Your task to perform on an android device: Find coffee shops on Maps Image 0: 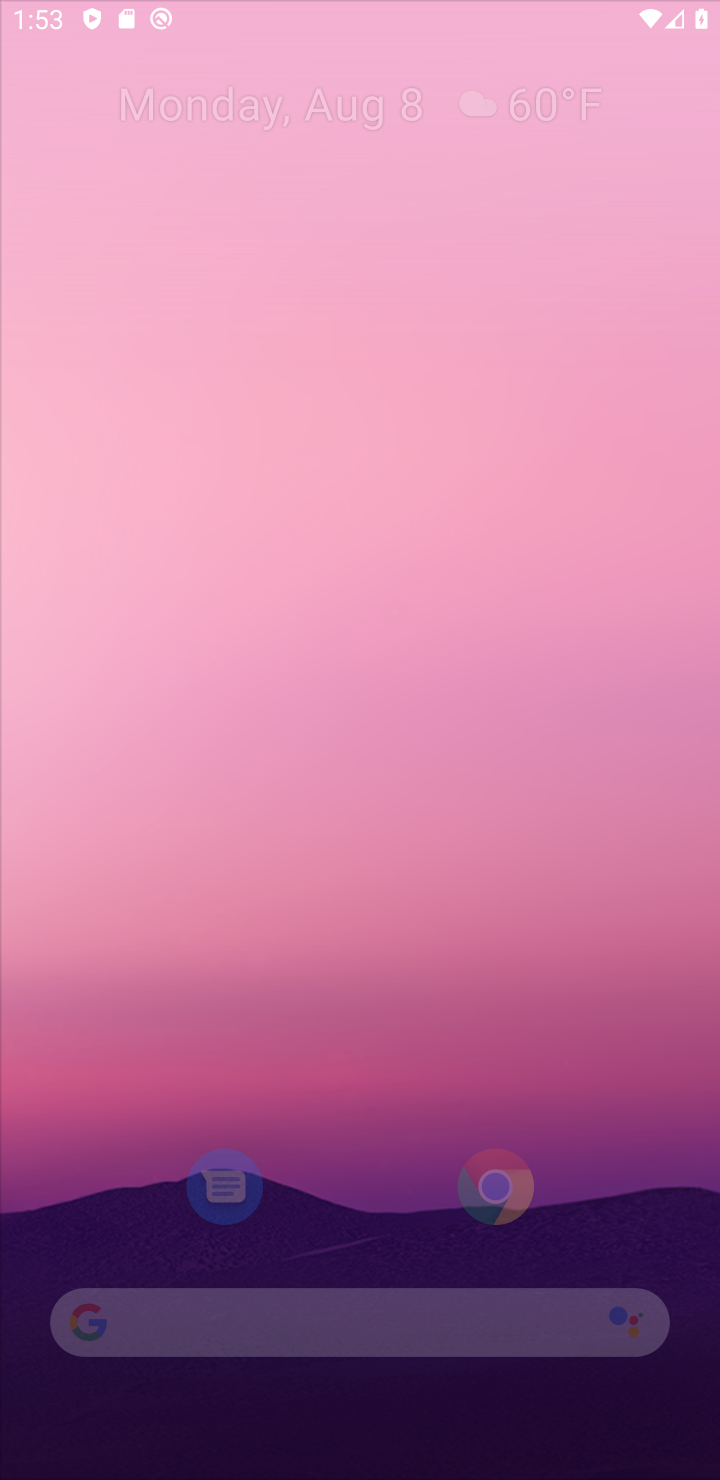
Step 0: press home button
Your task to perform on an android device: Find coffee shops on Maps Image 1: 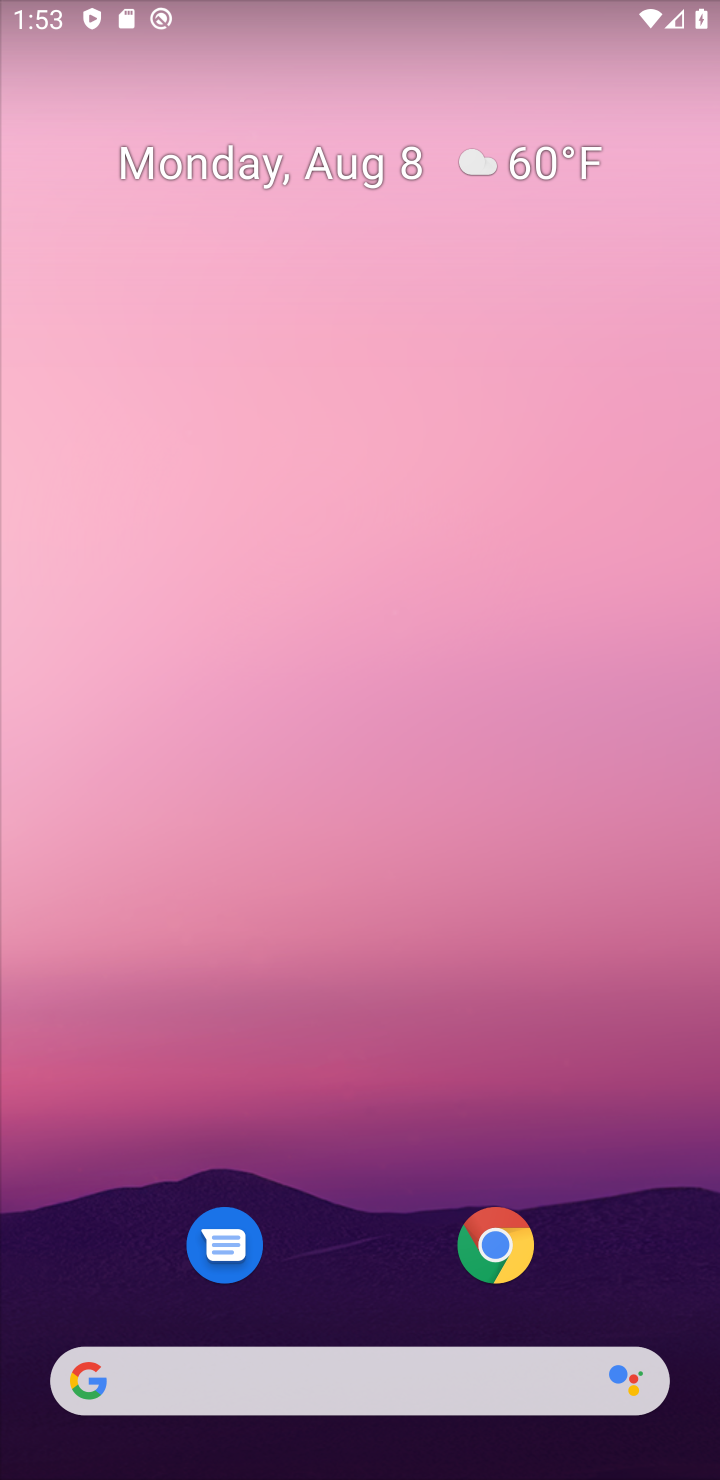
Step 1: drag from (372, 791) to (360, 289)
Your task to perform on an android device: Find coffee shops on Maps Image 2: 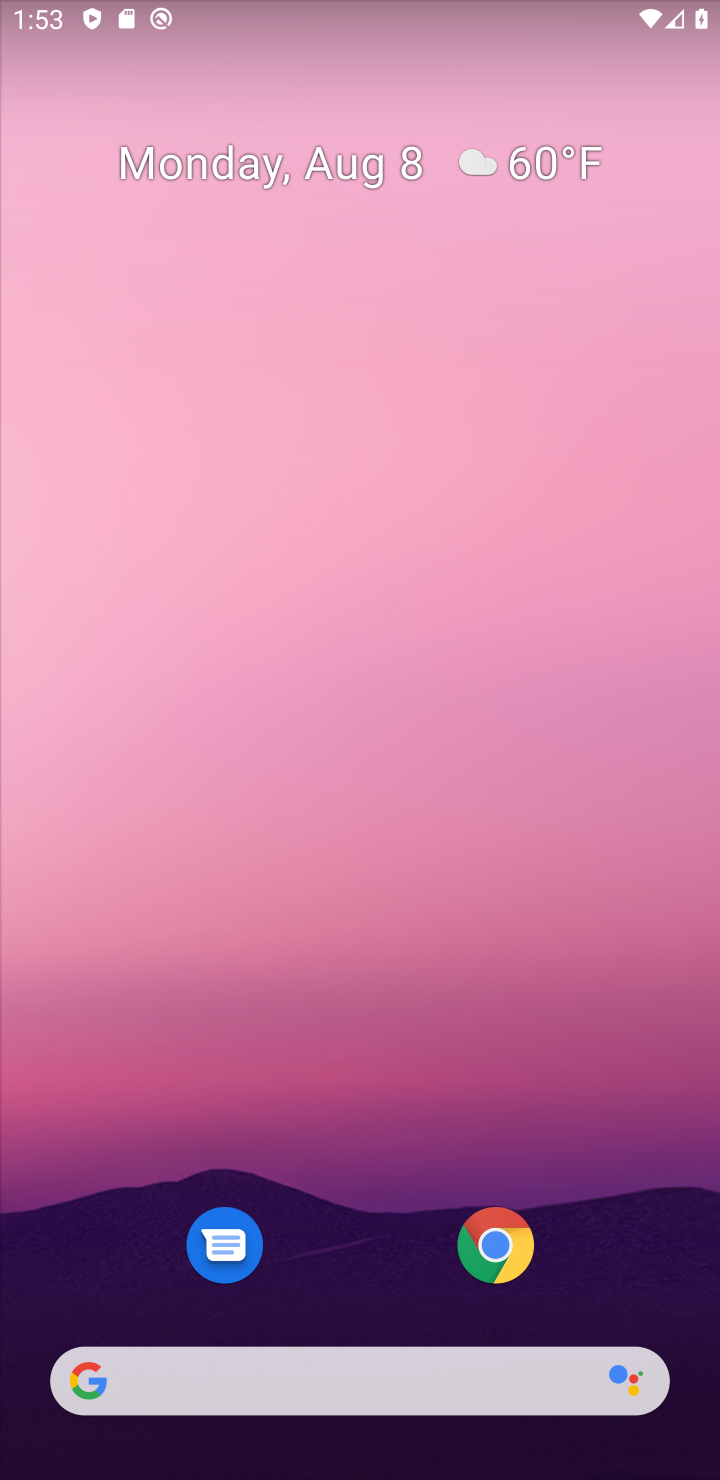
Step 2: drag from (368, 1130) to (239, 2)
Your task to perform on an android device: Find coffee shops on Maps Image 3: 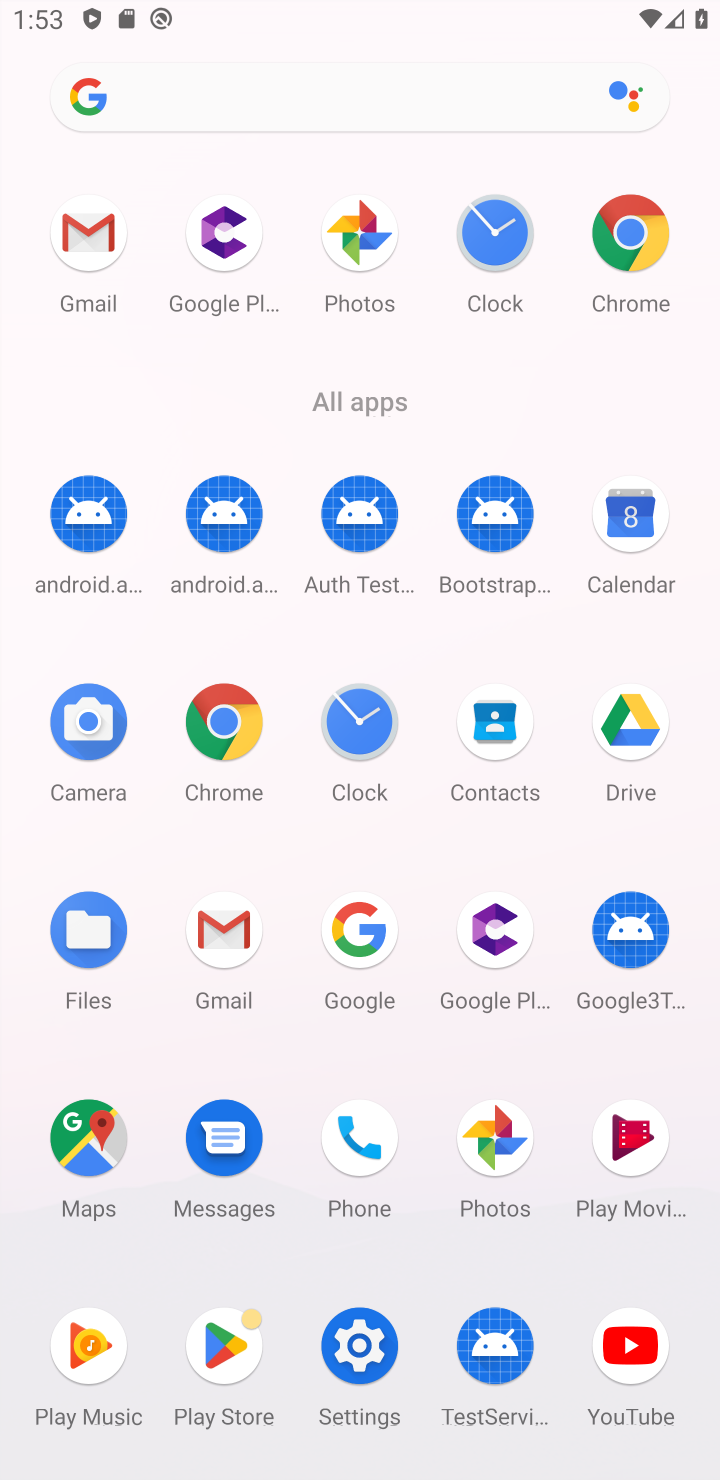
Step 3: click (82, 1152)
Your task to perform on an android device: Find coffee shops on Maps Image 4: 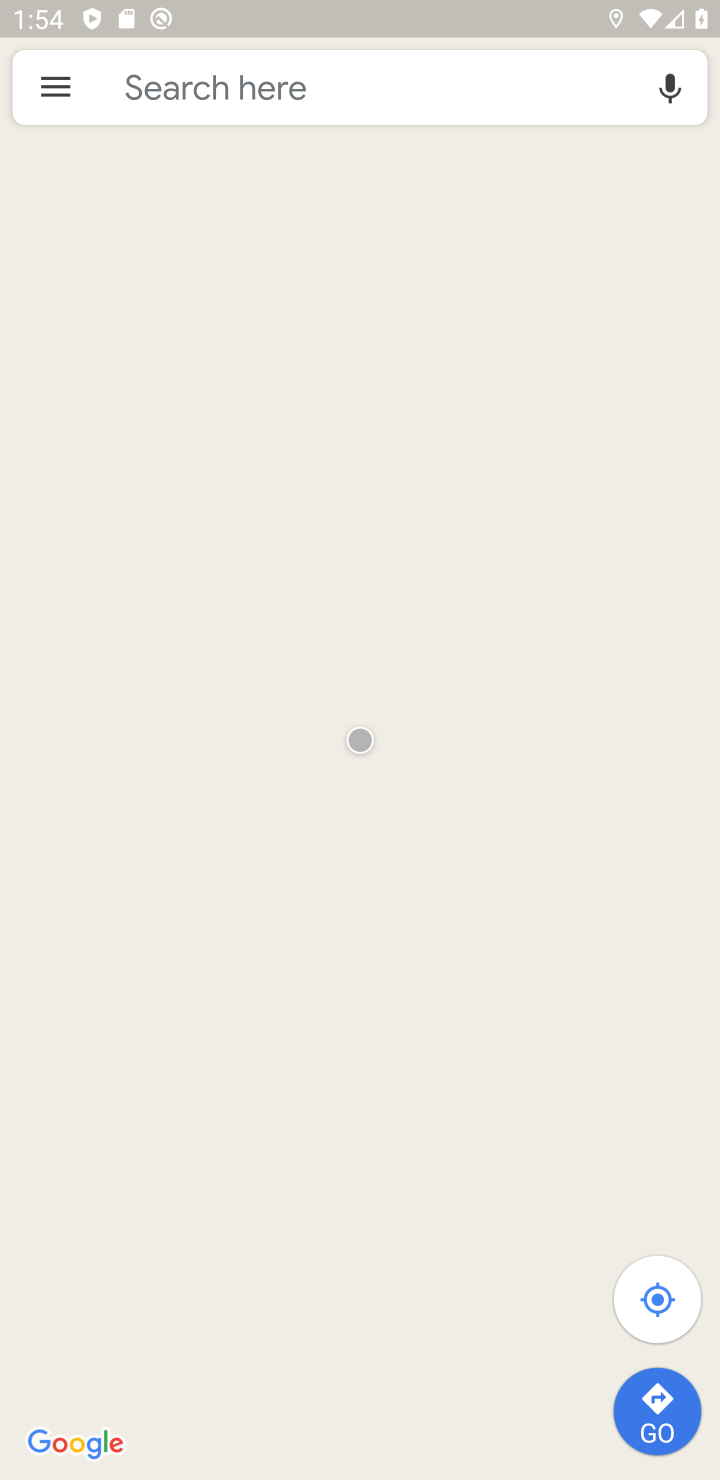
Step 4: click (262, 74)
Your task to perform on an android device: Find coffee shops on Maps Image 5: 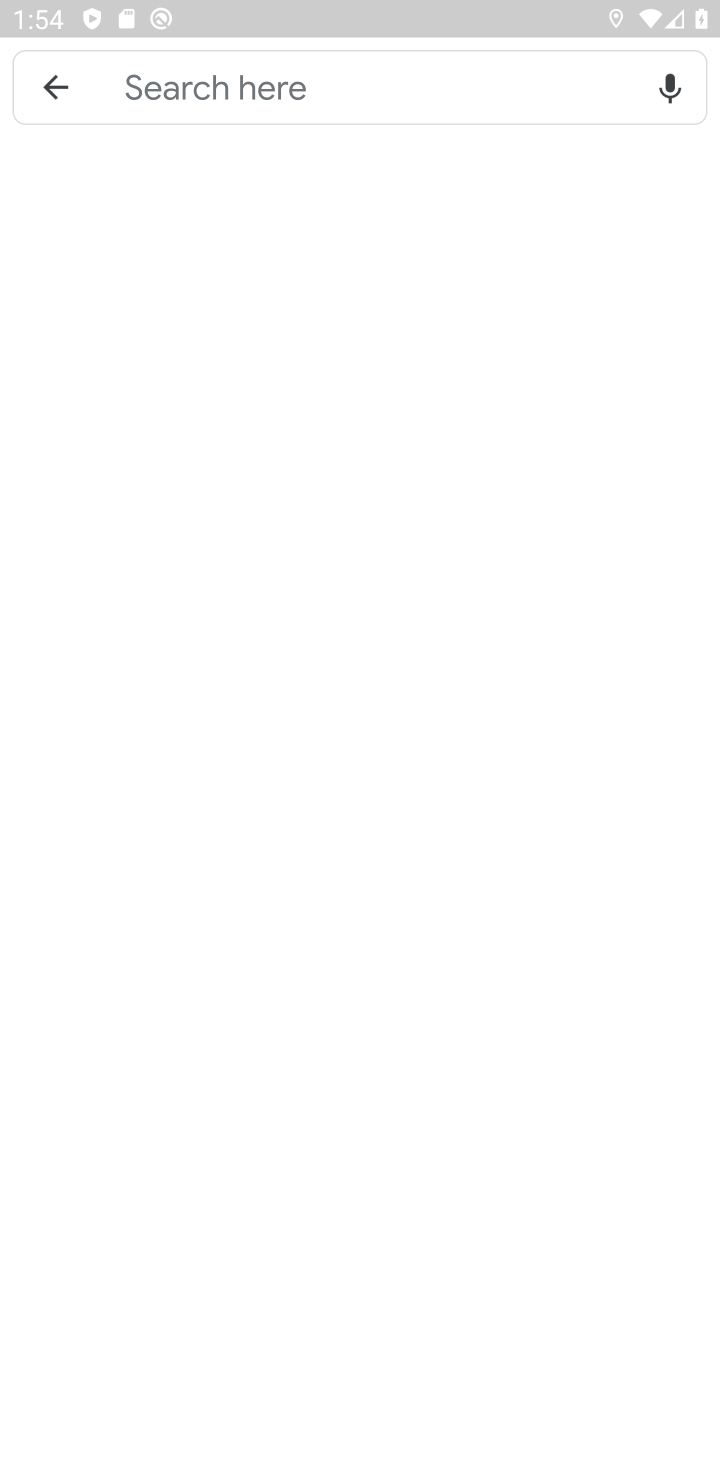
Step 5: click (222, 92)
Your task to perform on an android device: Find coffee shops on Maps Image 6: 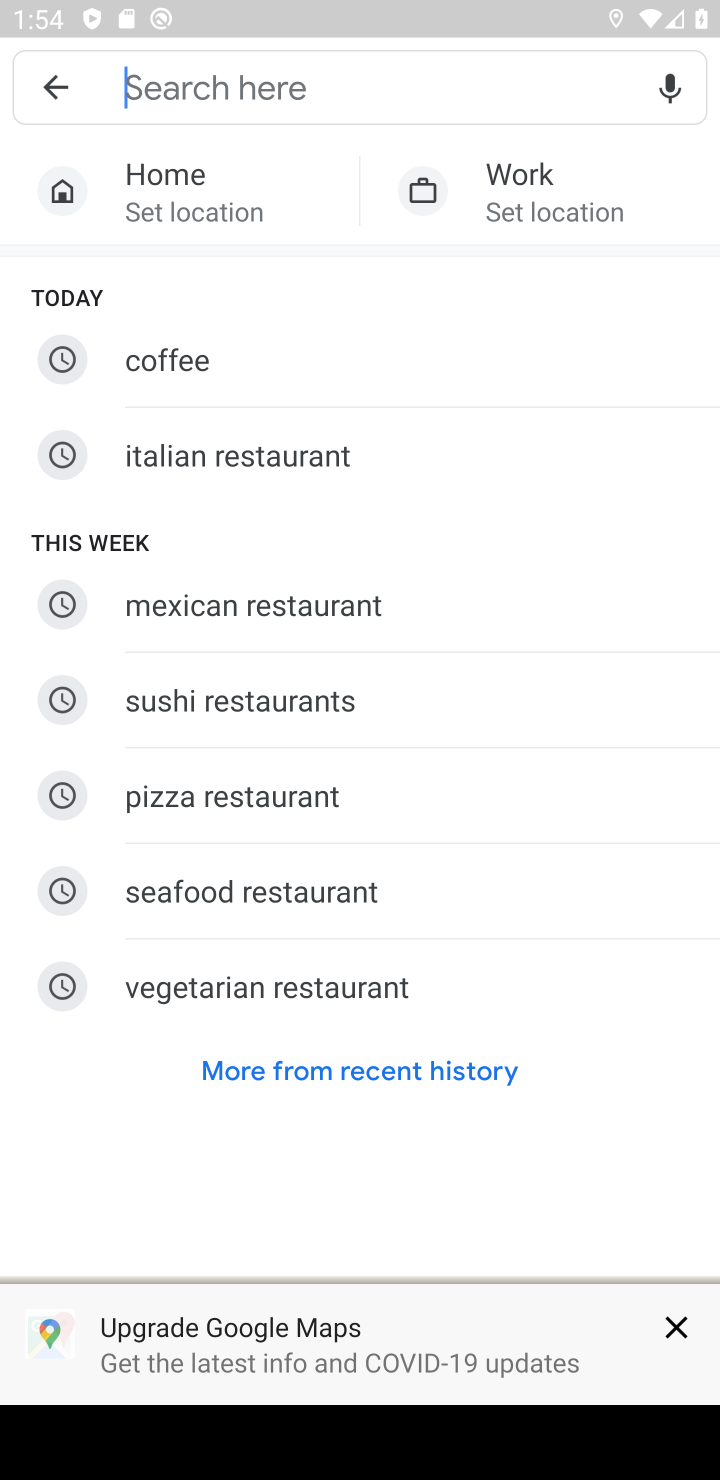
Step 6: click (183, 343)
Your task to perform on an android device: Find coffee shops on Maps Image 7: 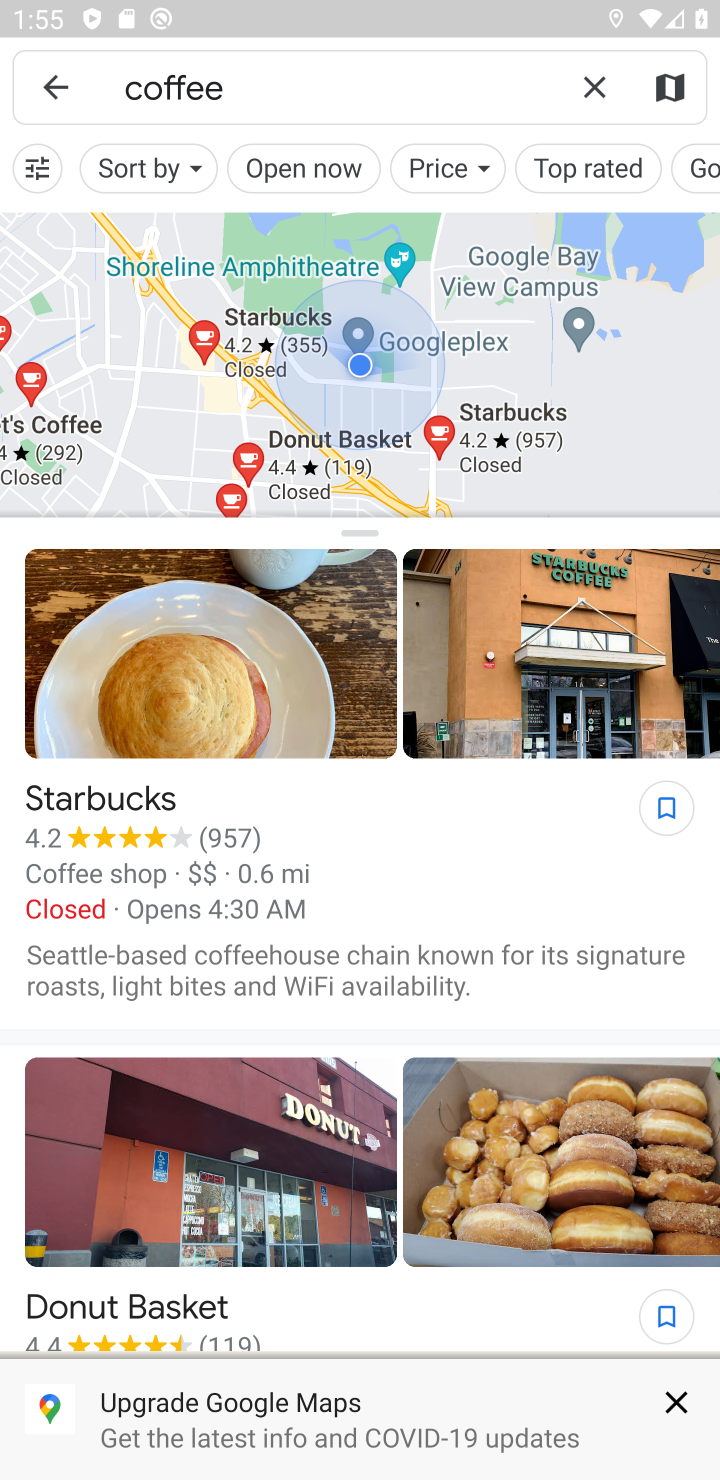
Step 7: task complete